Your task to perform on an android device: Clear the shopping cart on walmart.com. Search for dell xps on walmart.com, select the first entry, and add it to the cart. Image 0: 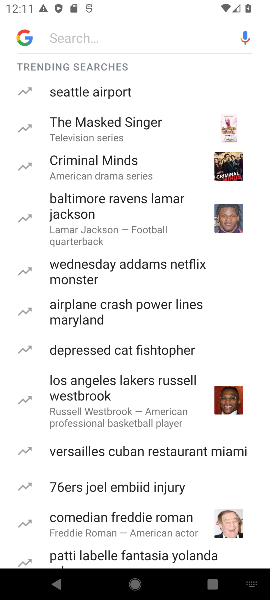
Step 0: press home button
Your task to perform on an android device: Clear the shopping cart on walmart.com. Search for dell xps on walmart.com, select the first entry, and add it to the cart. Image 1: 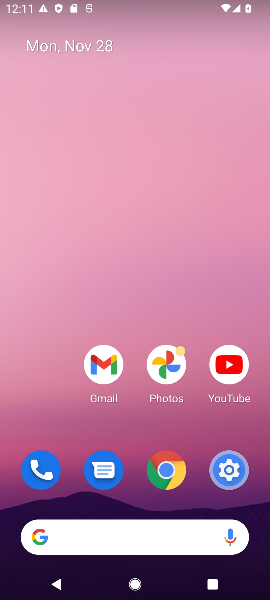
Step 1: click (104, 545)
Your task to perform on an android device: Clear the shopping cart on walmart.com. Search for dell xps on walmart.com, select the first entry, and add it to the cart. Image 2: 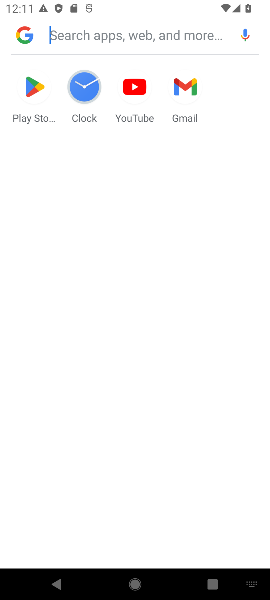
Step 2: type "walmart"
Your task to perform on an android device: Clear the shopping cart on walmart.com. Search for dell xps on walmart.com, select the first entry, and add it to the cart. Image 3: 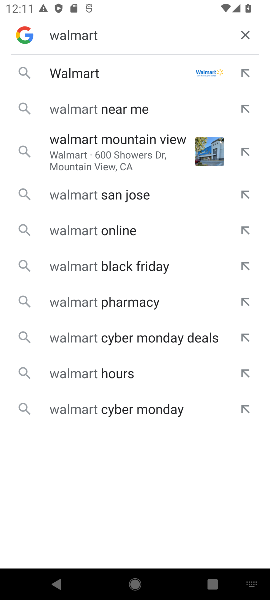
Step 3: click (82, 86)
Your task to perform on an android device: Clear the shopping cart on walmart.com. Search for dell xps on walmart.com, select the first entry, and add it to the cart. Image 4: 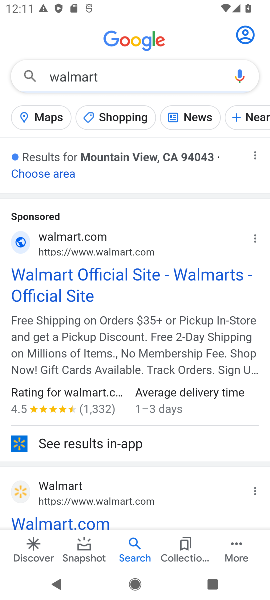
Step 4: click (97, 275)
Your task to perform on an android device: Clear the shopping cart on walmart.com. Search for dell xps on walmart.com, select the first entry, and add it to the cart. Image 5: 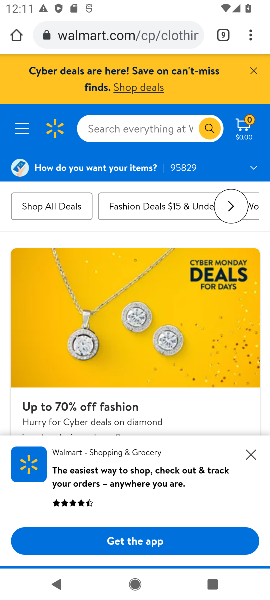
Step 5: click (124, 123)
Your task to perform on an android device: Clear the shopping cart on walmart.com. Search for dell xps on walmart.com, select the first entry, and add it to the cart. Image 6: 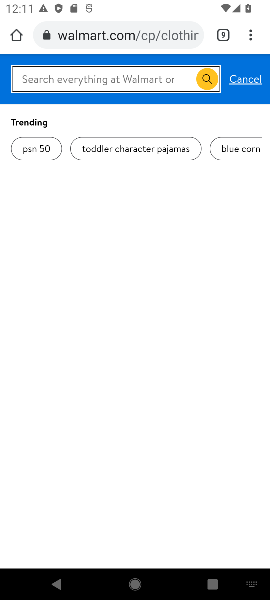
Step 6: type "dell xps"
Your task to perform on an android device: Clear the shopping cart on walmart.com. Search for dell xps on walmart.com, select the first entry, and add it to the cart. Image 7: 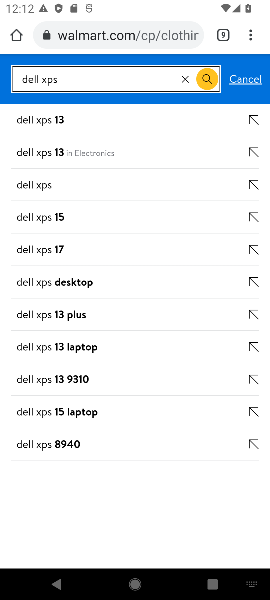
Step 7: click (72, 118)
Your task to perform on an android device: Clear the shopping cart on walmart.com. Search for dell xps on walmart.com, select the first entry, and add it to the cart. Image 8: 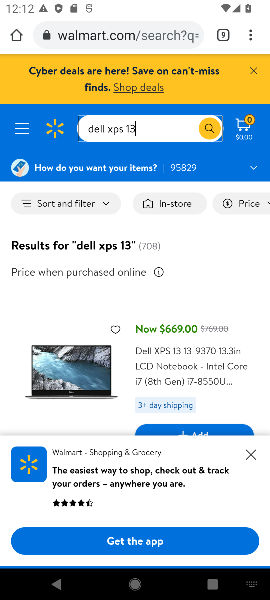
Step 8: click (249, 455)
Your task to perform on an android device: Clear the shopping cart on walmart.com. Search for dell xps on walmart.com, select the first entry, and add it to the cart. Image 9: 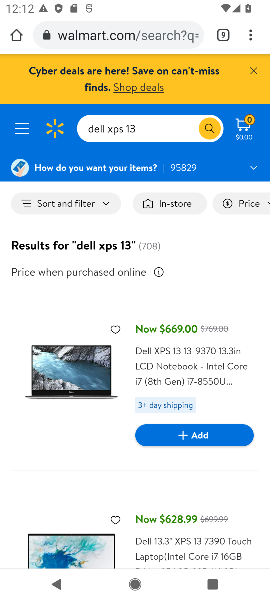
Step 9: click (206, 445)
Your task to perform on an android device: Clear the shopping cart on walmart.com. Search for dell xps on walmart.com, select the first entry, and add it to the cart. Image 10: 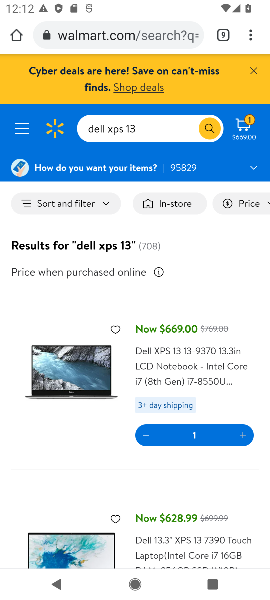
Step 10: task complete